Your task to perform on an android device: Turn on the flashlight Image 0: 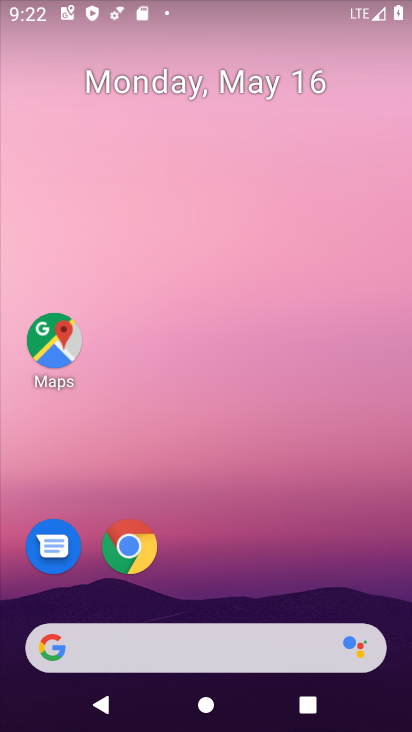
Step 0: drag from (253, 683) to (265, 226)
Your task to perform on an android device: Turn on the flashlight Image 1: 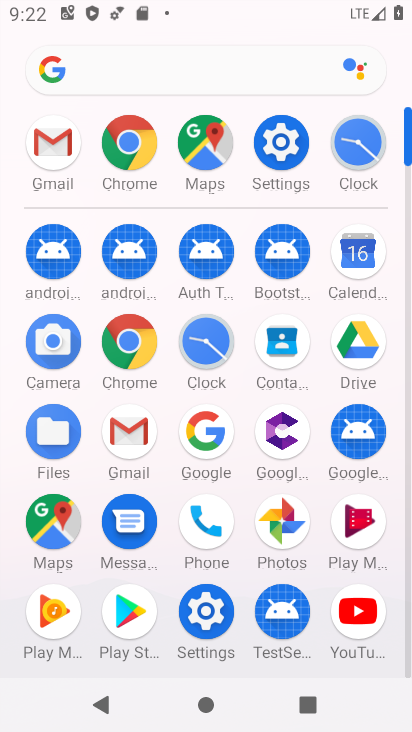
Step 1: click (296, 161)
Your task to perform on an android device: Turn on the flashlight Image 2: 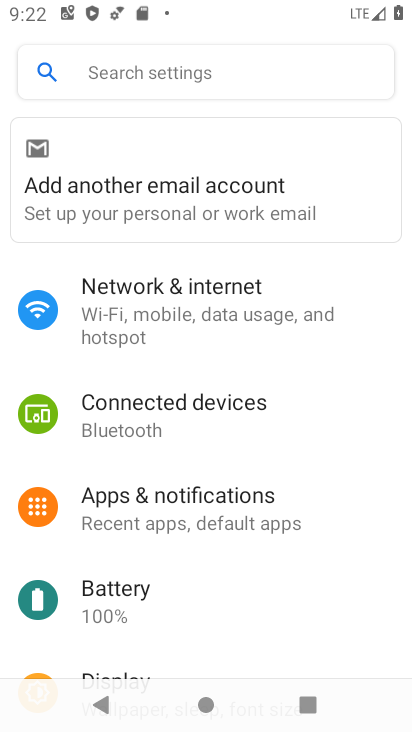
Step 2: click (141, 70)
Your task to perform on an android device: Turn on the flashlight Image 3: 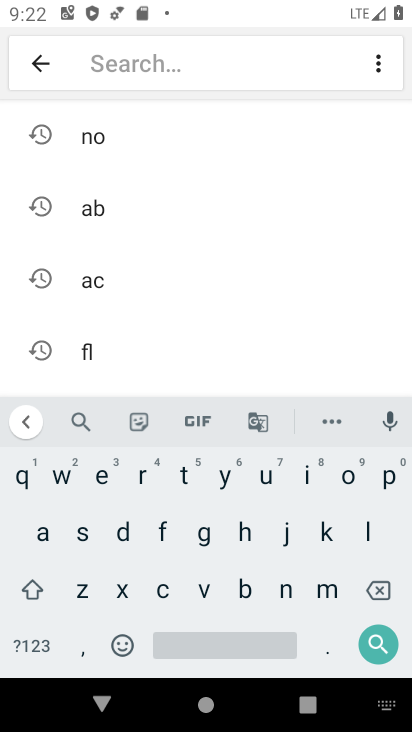
Step 3: click (163, 521)
Your task to perform on an android device: Turn on the flashlight Image 4: 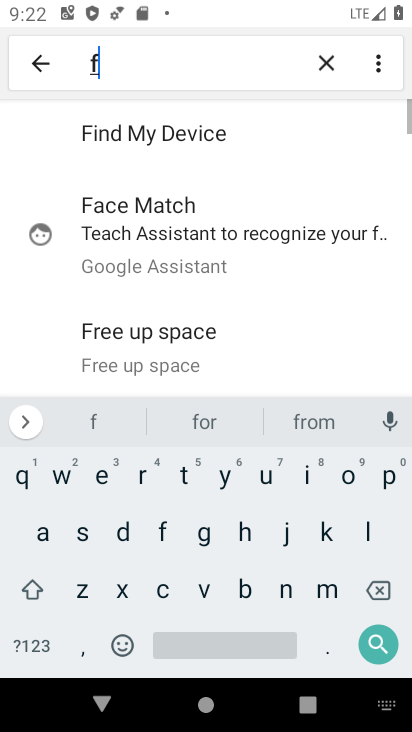
Step 4: click (354, 537)
Your task to perform on an android device: Turn on the flashlight Image 5: 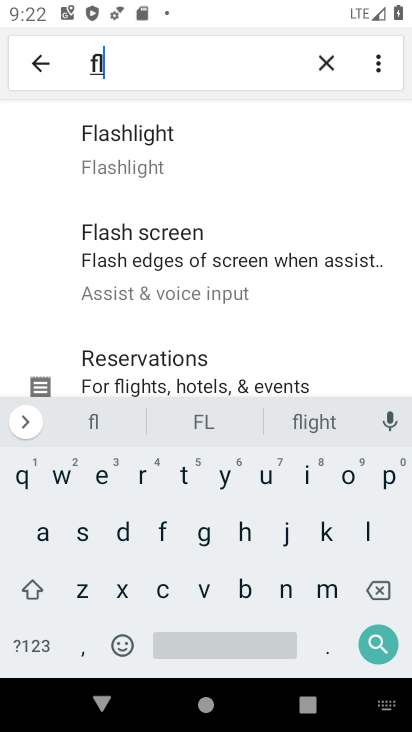
Step 5: click (147, 154)
Your task to perform on an android device: Turn on the flashlight Image 6: 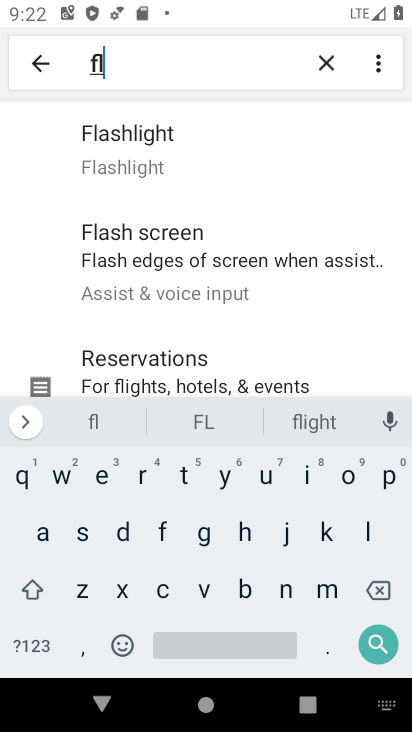
Step 6: click (177, 166)
Your task to perform on an android device: Turn on the flashlight Image 7: 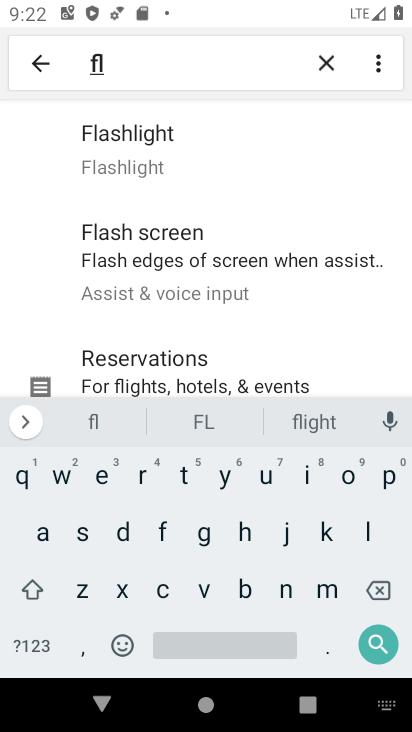
Step 7: task complete